Your task to perform on an android device: Open sound settings Image 0: 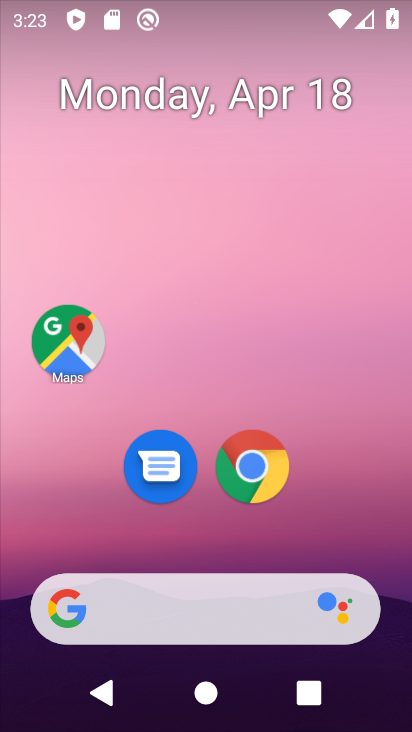
Step 0: drag from (325, 512) to (302, 84)
Your task to perform on an android device: Open sound settings Image 1: 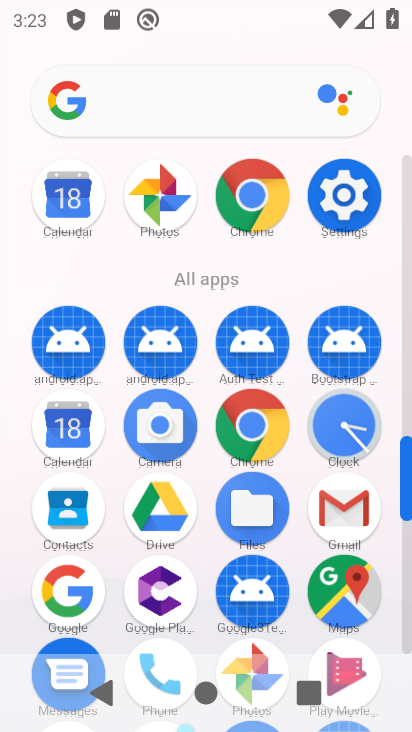
Step 1: click (324, 196)
Your task to perform on an android device: Open sound settings Image 2: 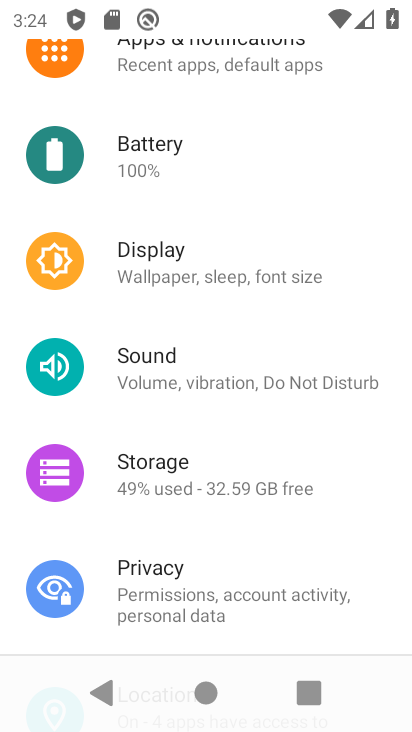
Step 2: drag from (204, 522) to (233, 272)
Your task to perform on an android device: Open sound settings Image 3: 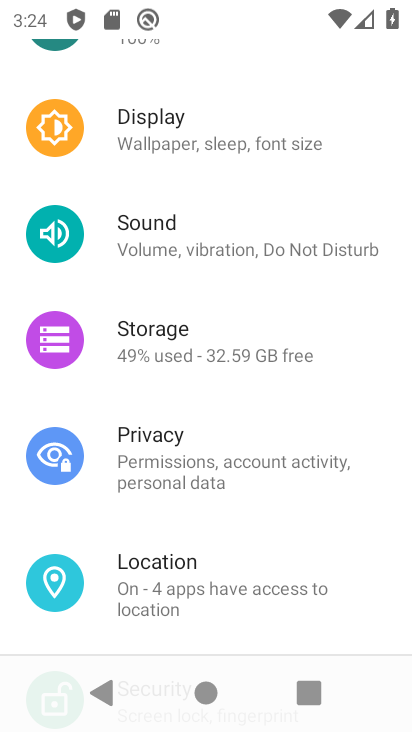
Step 3: drag from (233, 541) to (240, 295)
Your task to perform on an android device: Open sound settings Image 4: 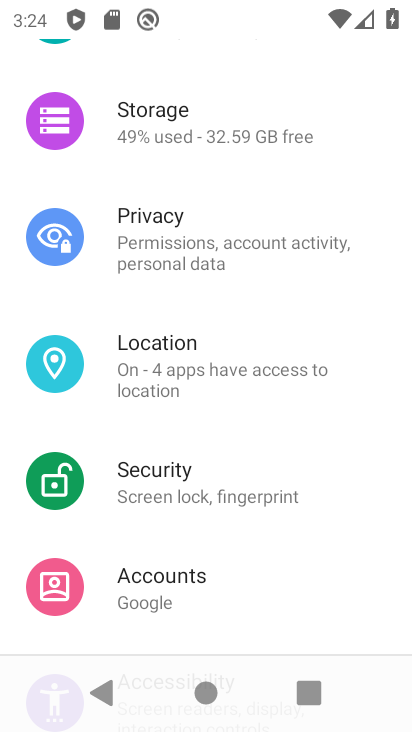
Step 4: drag from (268, 200) to (251, 486)
Your task to perform on an android device: Open sound settings Image 5: 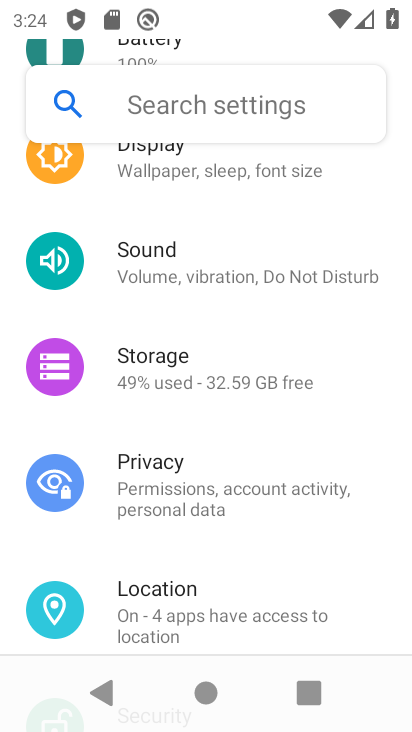
Step 5: drag from (239, 229) to (225, 606)
Your task to perform on an android device: Open sound settings Image 6: 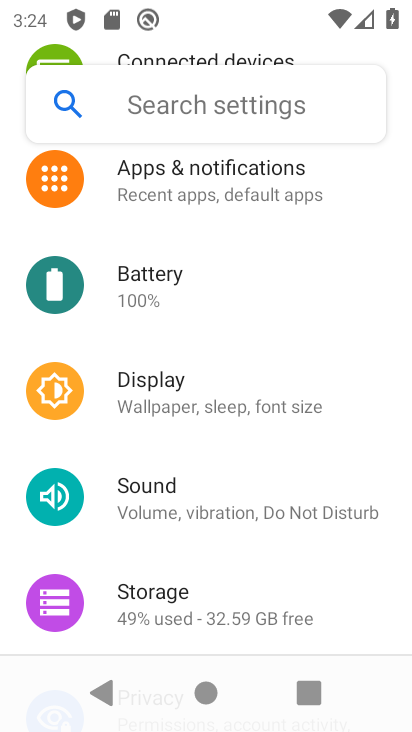
Step 6: click (231, 520)
Your task to perform on an android device: Open sound settings Image 7: 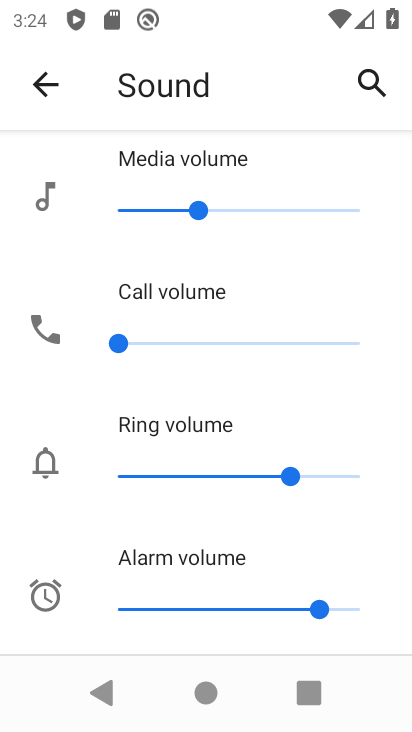
Step 7: drag from (175, 625) to (203, 270)
Your task to perform on an android device: Open sound settings Image 8: 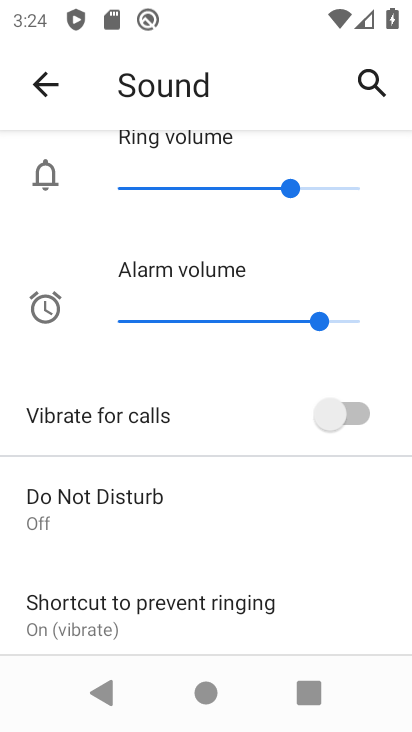
Step 8: drag from (193, 526) to (215, 332)
Your task to perform on an android device: Open sound settings Image 9: 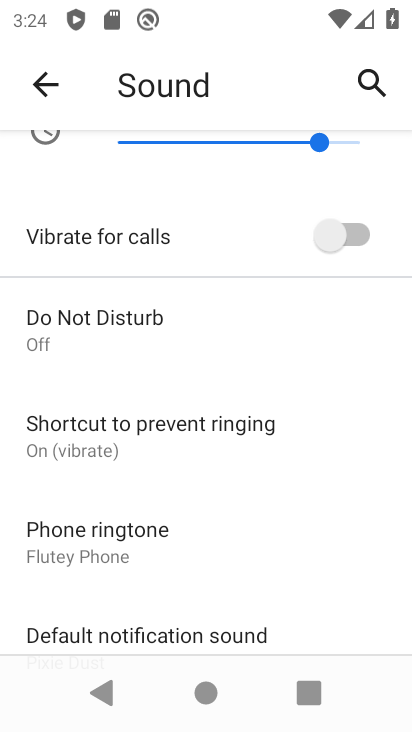
Step 9: drag from (197, 593) to (245, 246)
Your task to perform on an android device: Open sound settings Image 10: 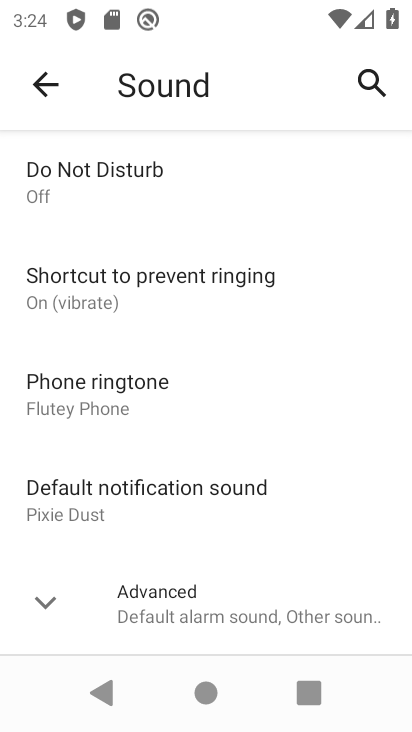
Step 10: click (262, 609)
Your task to perform on an android device: Open sound settings Image 11: 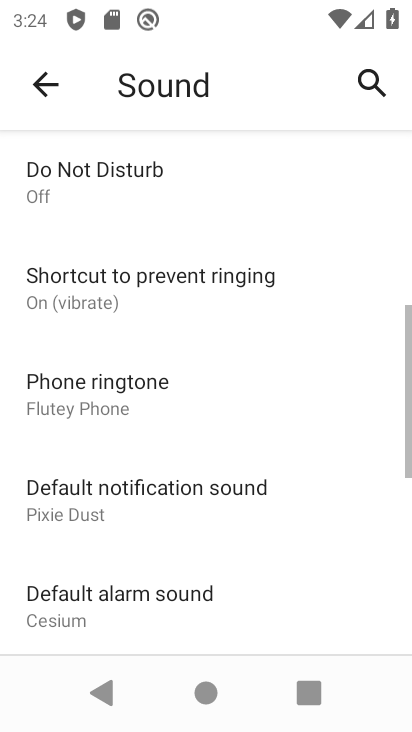
Step 11: task complete